Your task to perform on an android device: Open Android settings Image 0: 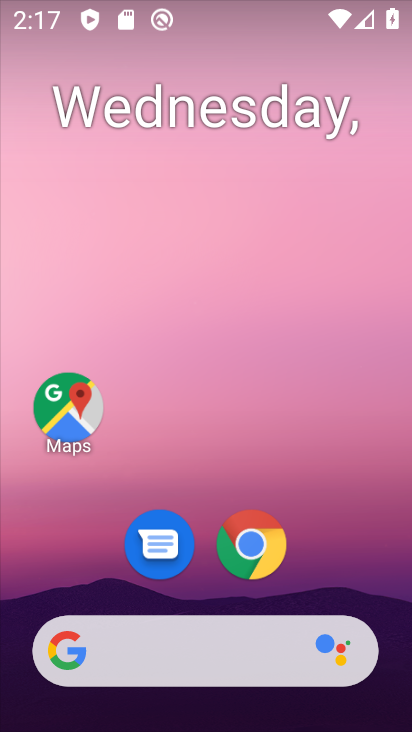
Step 0: drag from (399, 566) to (364, 51)
Your task to perform on an android device: Open Android settings Image 1: 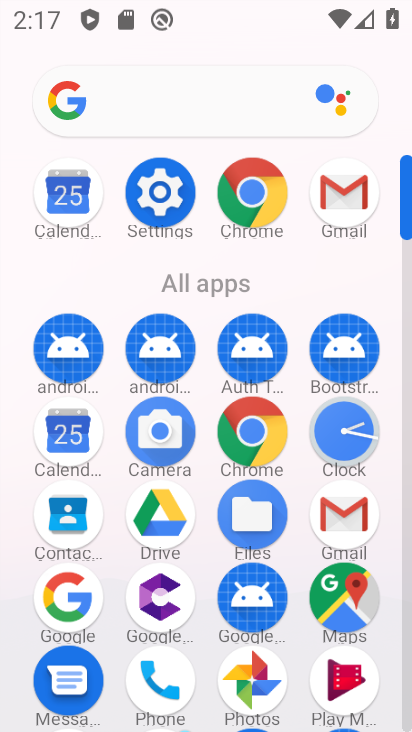
Step 1: click (159, 208)
Your task to perform on an android device: Open Android settings Image 2: 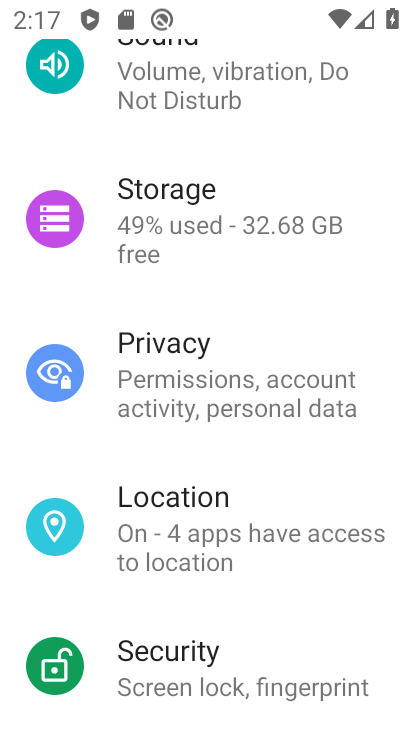
Step 2: drag from (303, 647) to (359, 247)
Your task to perform on an android device: Open Android settings Image 3: 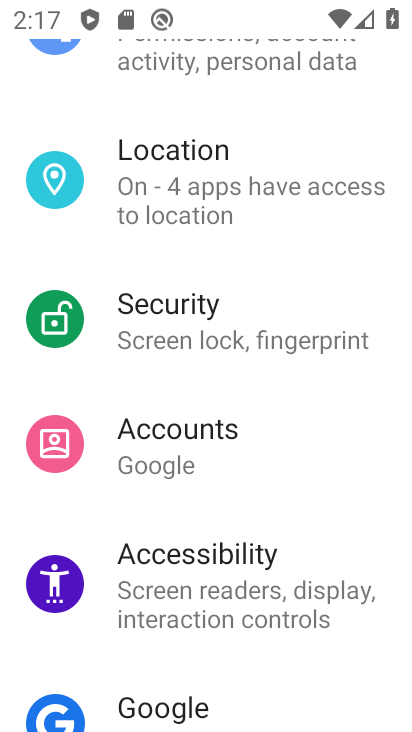
Step 3: drag from (262, 652) to (289, 211)
Your task to perform on an android device: Open Android settings Image 4: 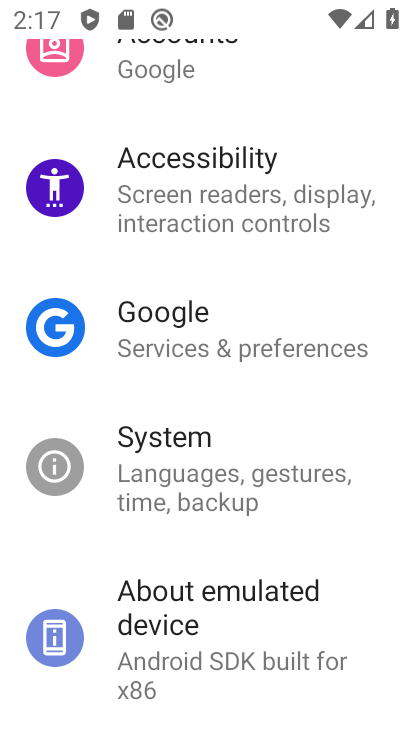
Step 4: drag from (273, 698) to (313, 315)
Your task to perform on an android device: Open Android settings Image 5: 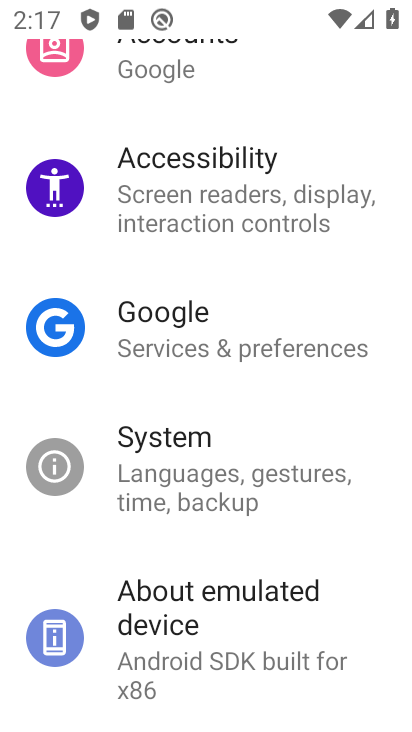
Step 5: drag from (341, 606) to (359, 384)
Your task to perform on an android device: Open Android settings Image 6: 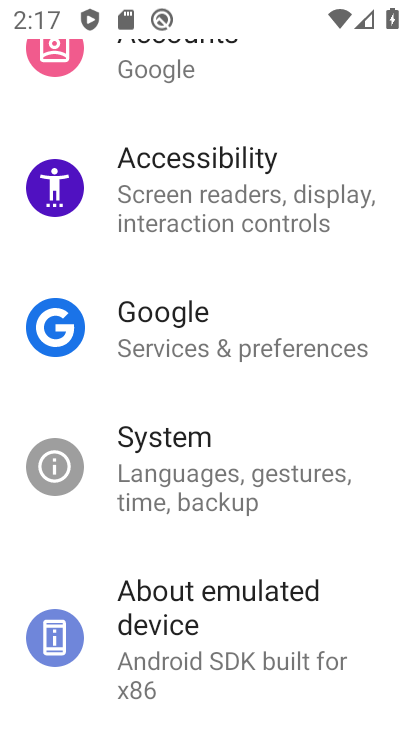
Step 6: click (244, 597)
Your task to perform on an android device: Open Android settings Image 7: 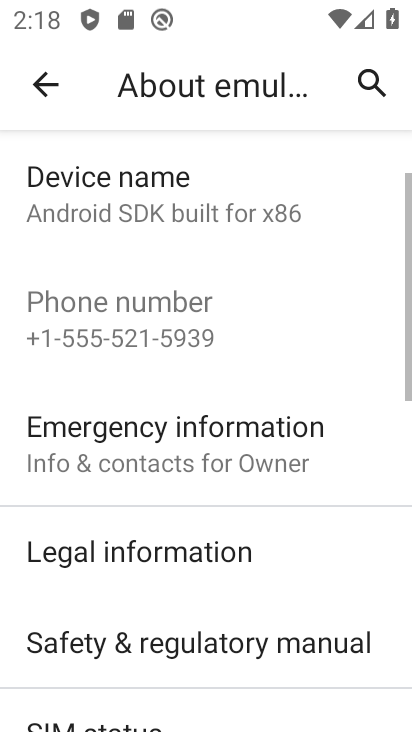
Step 7: drag from (283, 678) to (356, 338)
Your task to perform on an android device: Open Android settings Image 8: 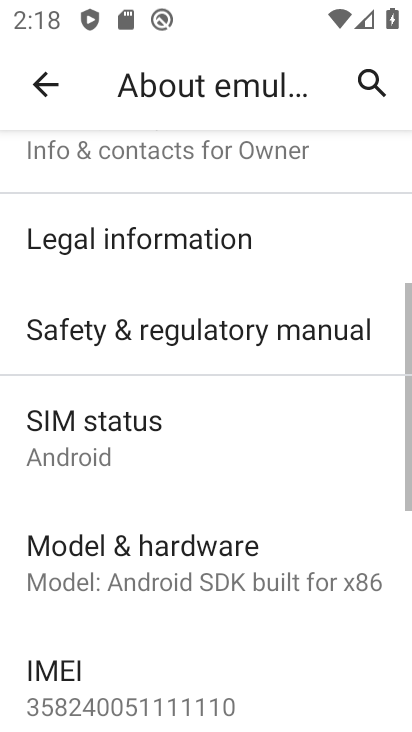
Step 8: drag from (300, 669) to (326, 403)
Your task to perform on an android device: Open Android settings Image 9: 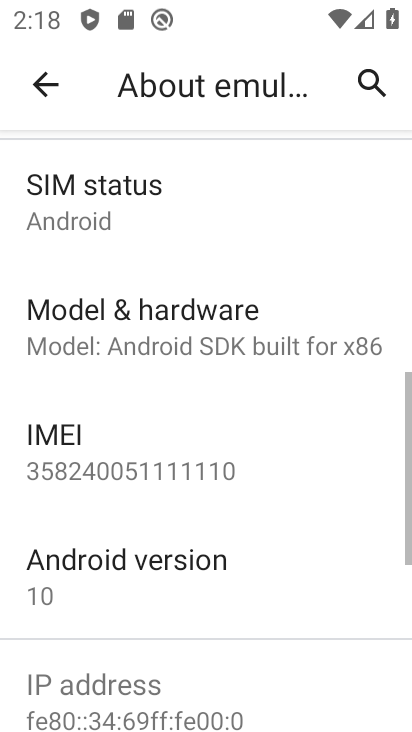
Step 9: click (183, 595)
Your task to perform on an android device: Open Android settings Image 10: 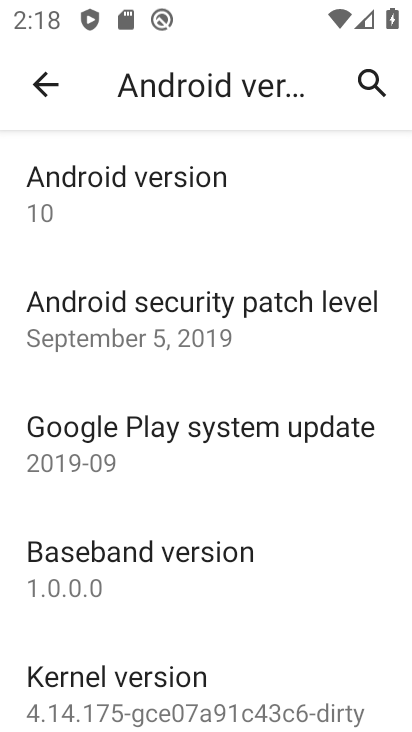
Step 10: task complete